Your task to perform on an android device: Open privacy settings Image 0: 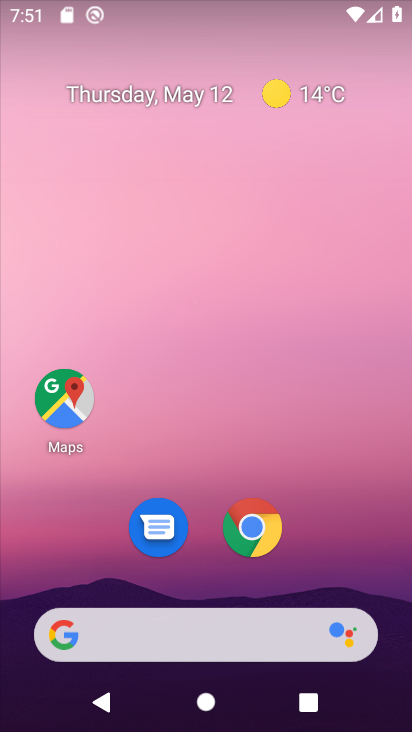
Step 0: drag from (314, 578) to (302, 216)
Your task to perform on an android device: Open privacy settings Image 1: 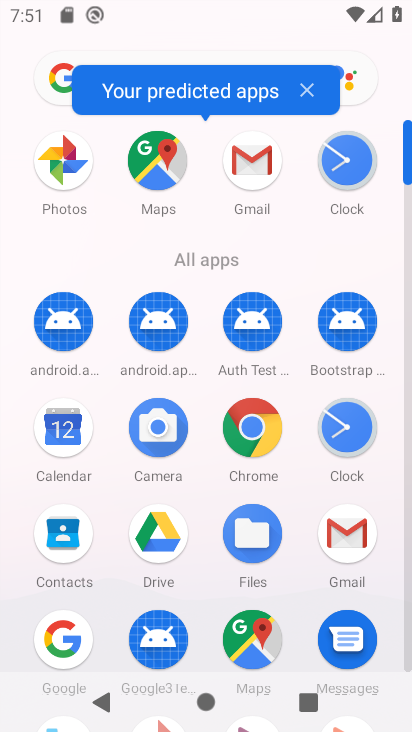
Step 1: drag from (222, 568) to (275, 193)
Your task to perform on an android device: Open privacy settings Image 2: 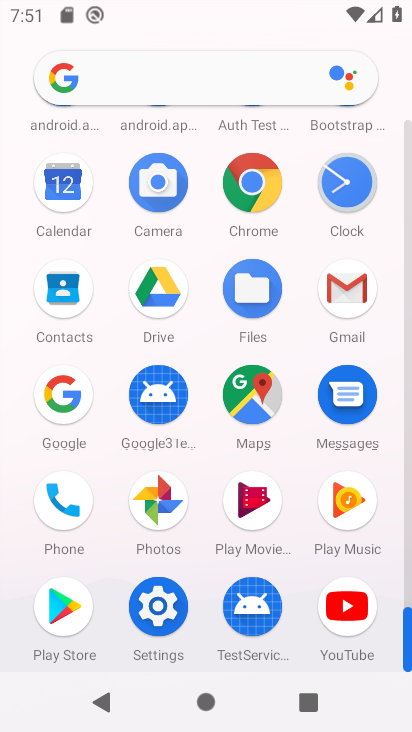
Step 2: click (162, 609)
Your task to perform on an android device: Open privacy settings Image 3: 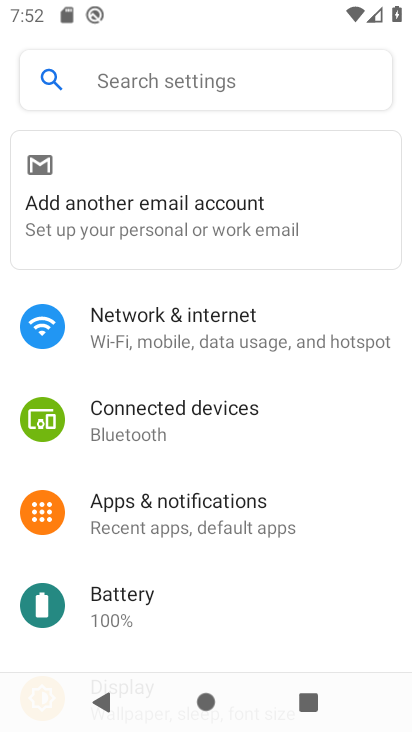
Step 3: drag from (254, 601) to (271, 254)
Your task to perform on an android device: Open privacy settings Image 4: 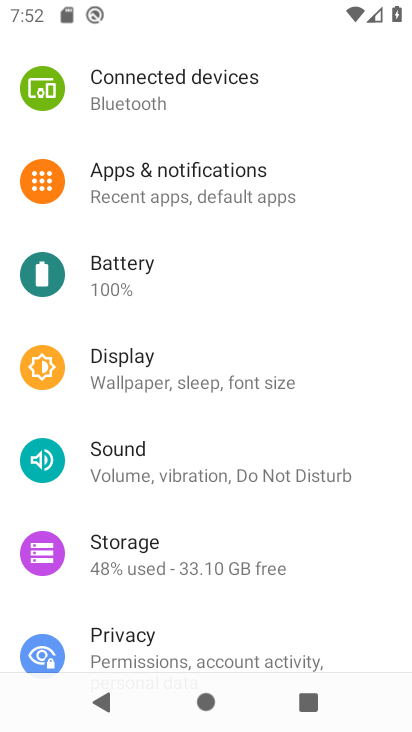
Step 4: drag from (253, 567) to (258, 373)
Your task to perform on an android device: Open privacy settings Image 5: 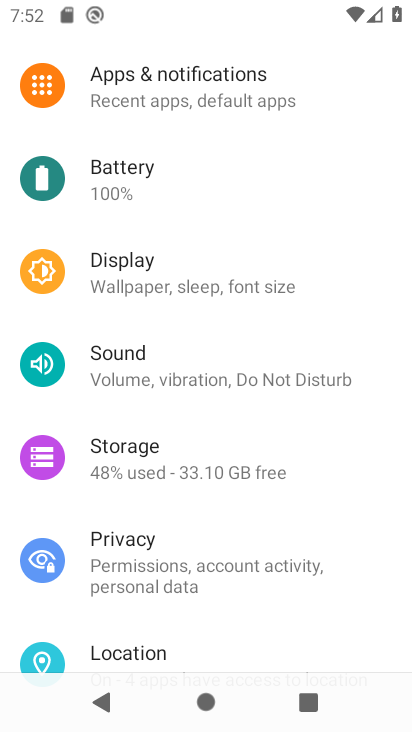
Step 5: click (221, 564)
Your task to perform on an android device: Open privacy settings Image 6: 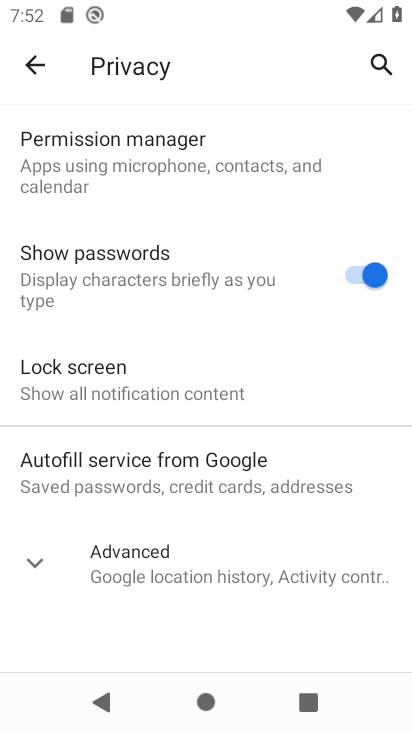
Step 6: task complete